Your task to perform on an android device: add a label to a message in the gmail app Image 0: 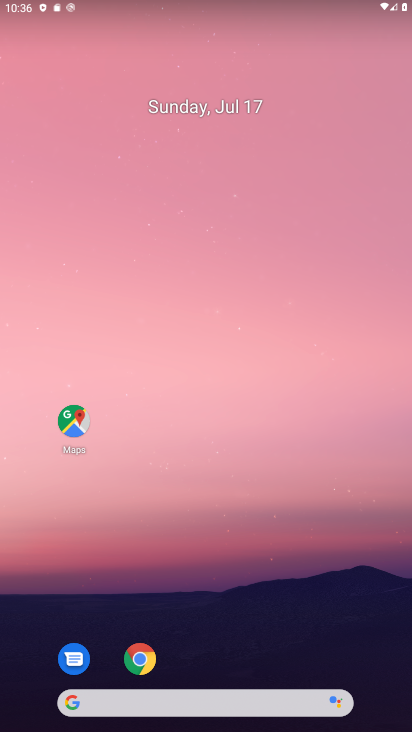
Step 0: drag from (289, 603) to (256, 6)
Your task to perform on an android device: add a label to a message in the gmail app Image 1: 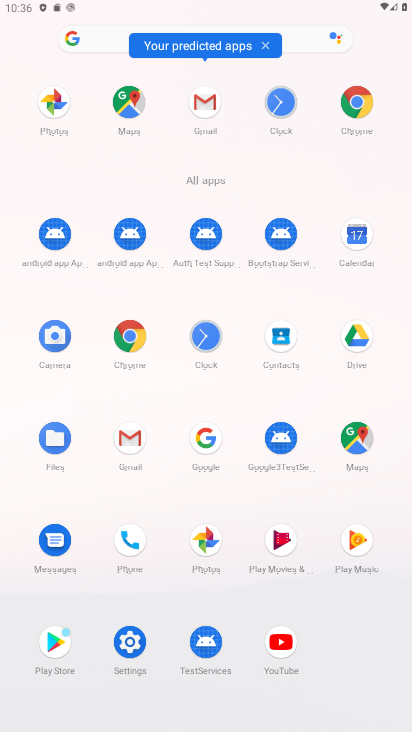
Step 1: click (201, 117)
Your task to perform on an android device: add a label to a message in the gmail app Image 2: 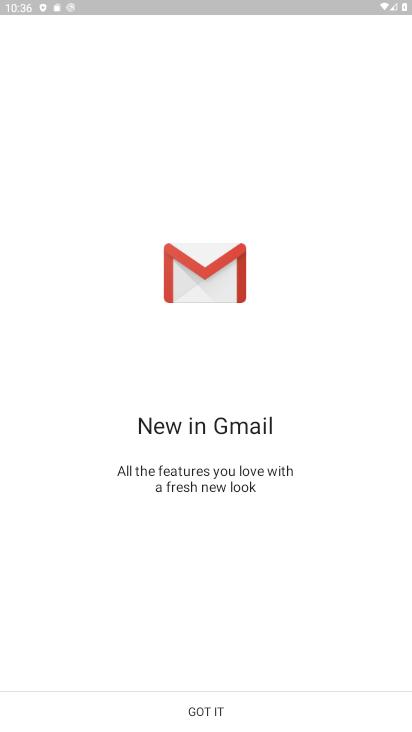
Step 2: click (169, 707)
Your task to perform on an android device: add a label to a message in the gmail app Image 3: 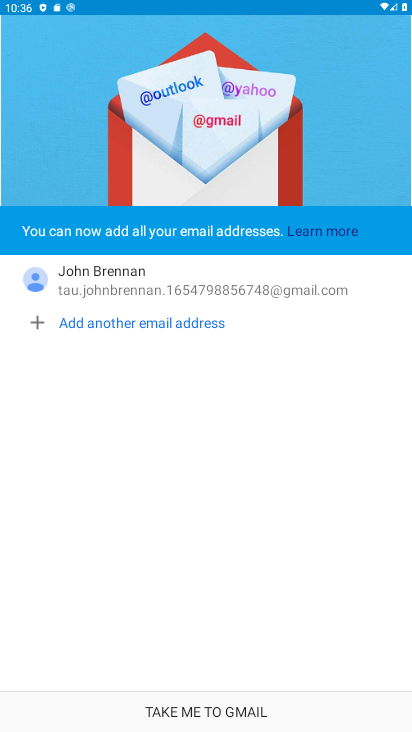
Step 3: click (174, 709)
Your task to perform on an android device: add a label to a message in the gmail app Image 4: 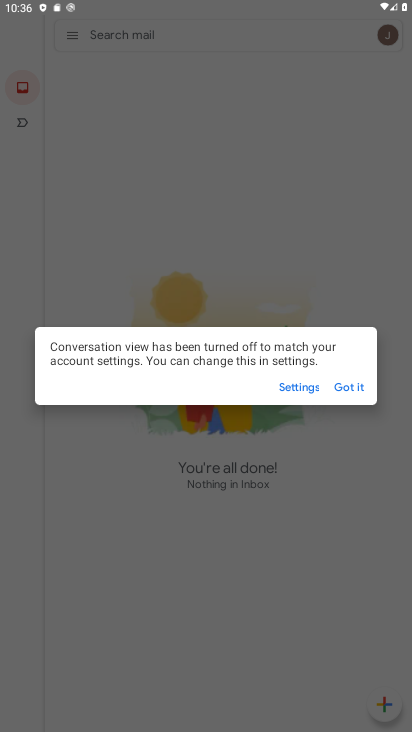
Step 4: click (352, 390)
Your task to perform on an android device: add a label to a message in the gmail app Image 5: 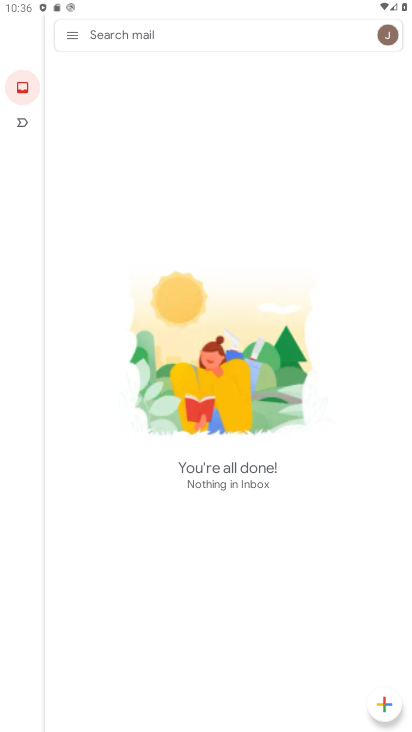
Step 5: click (61, 38)
Your task to perform on an android device: add a label to a message in the gmail app Image 6: 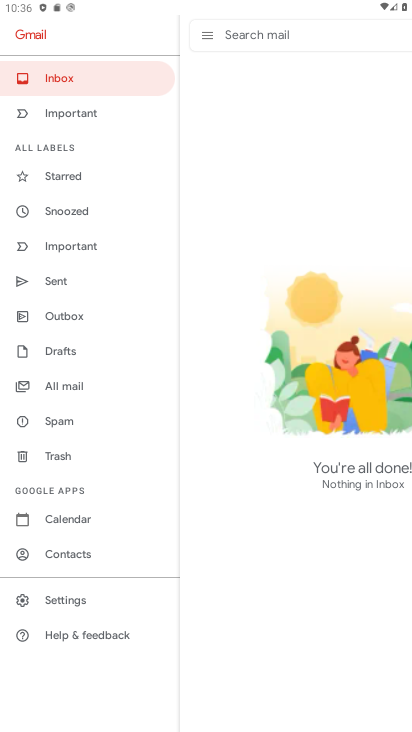
Step 6: click (51, 378)
Your task to perform on an android device: add a label to a message in the gmail app Image 7: 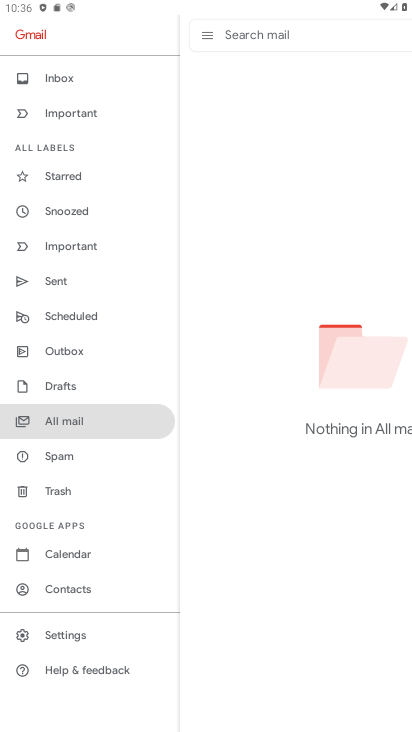
Step 7: task complete